Your task to perform on an android device: turn on bluetooth scan Image 0: 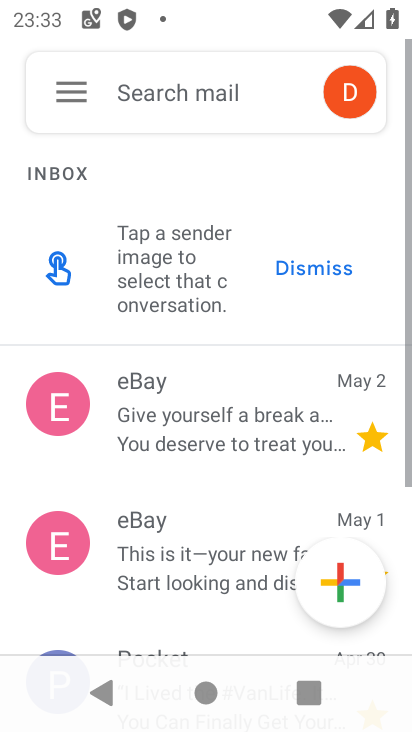
Step 0: press home button
Your task to perform on an android device: turn on bluetooth scan Image 1: 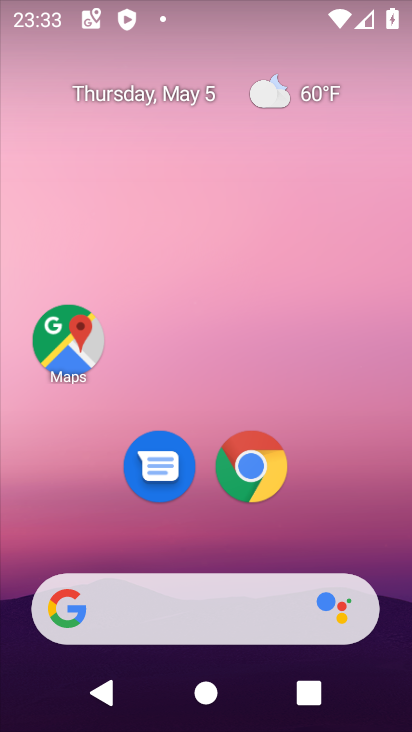
Step 1: drag from (191, 575) to (300, 249)
Your task to perform on an android device: turn on bluetooth scan Image 2: 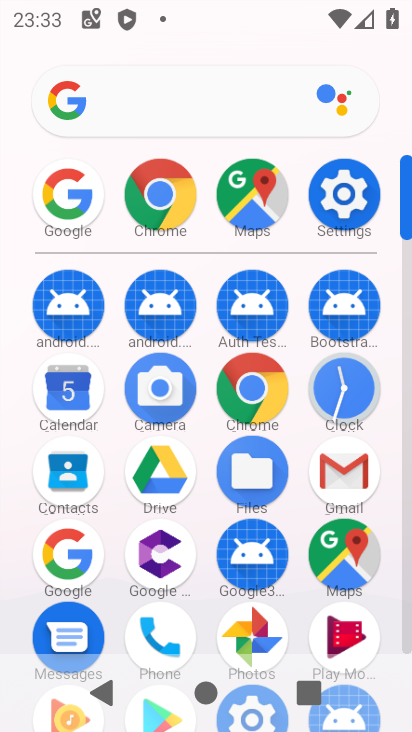
Step 2: click (346, 204)
Your task to perform on an android device: turn on bluetooth scan Image 3: 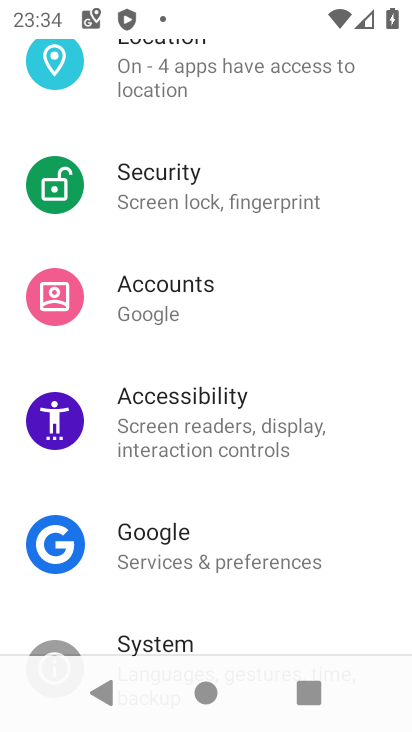
Step 3: drag from (170, 641) to (318, 238)
Your task to perform on an android device: turn on bluetooth scan Image 4: 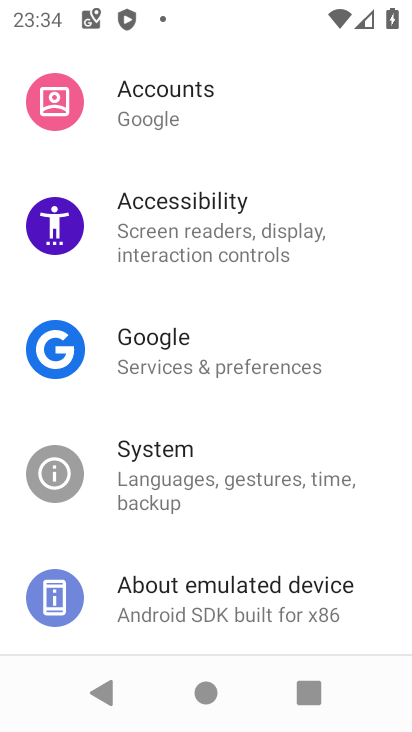
Step 4: drag from (213, 187) to (241, 570)
Your task to perform on an android device: turn on bluetooth scan Image 5: 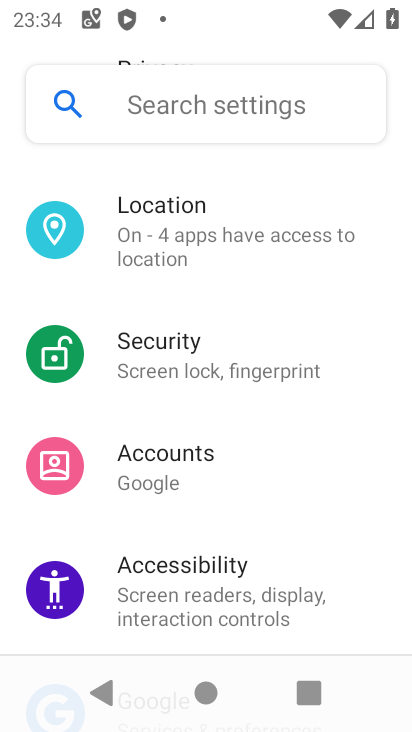
Step 5: drag from (211, 192) to (262, 572)
Your task to perform on an android device: turn on bluetooth scan Image 6: 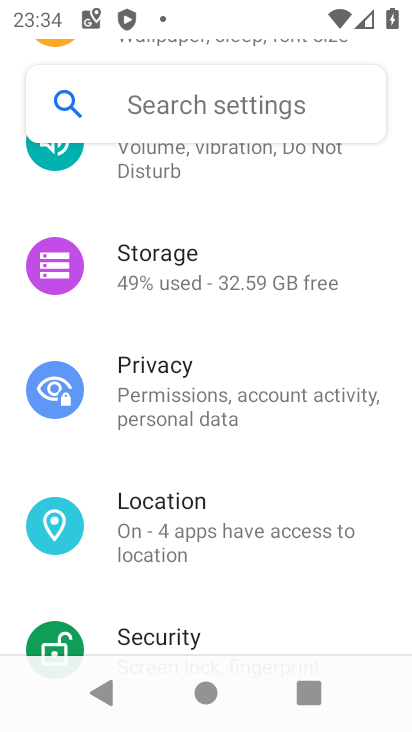
Step 6: click (181, 539)
Your task to perform on an android device: turn on bluetooth scan Image 7: 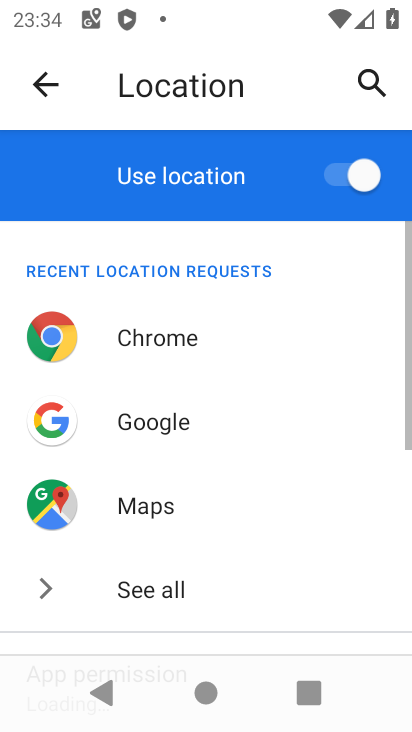
Step 7: drag from (210, 610) to (310, 225)
Your task to perform on an android device: turn on bluetooth scan Image 8: 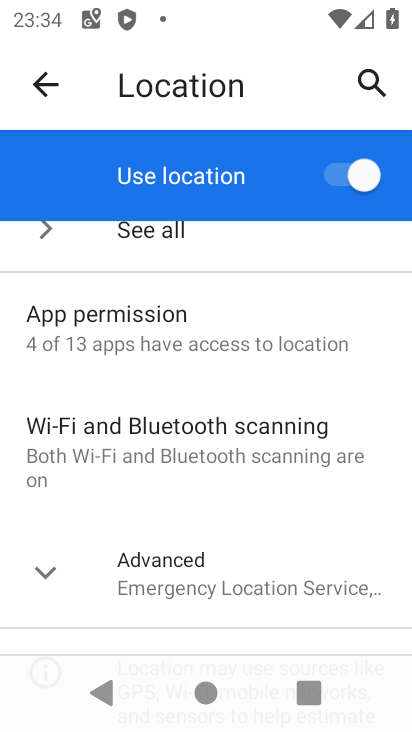
Step 8: click (169, 576)
Your task to perform on an android device: turn on bluetooth scan Image 9: 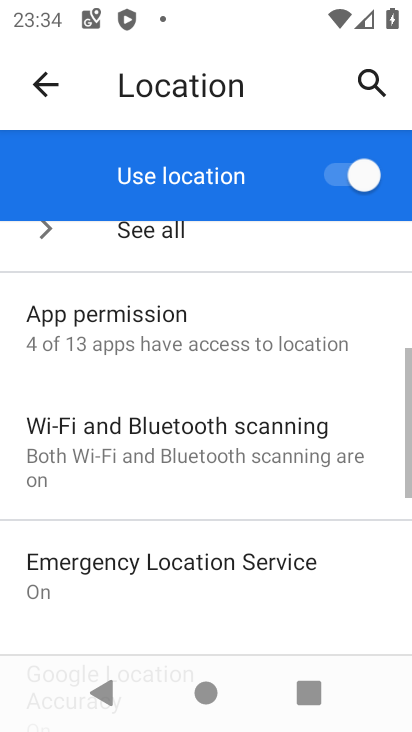
Step 9: drag from (188, 606) to (240, 340)
Your task to perform on an android device: turn on bluetooth scan Image 10: 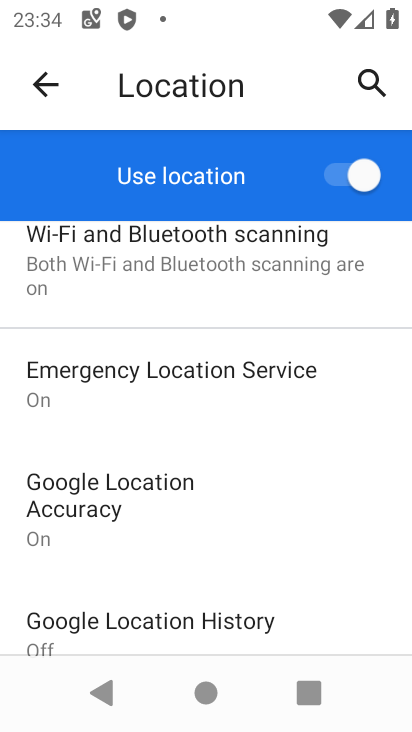
Step 10: click (162, 259)
Your task to perform on an android device: turn on bluetooth scan Image 11: 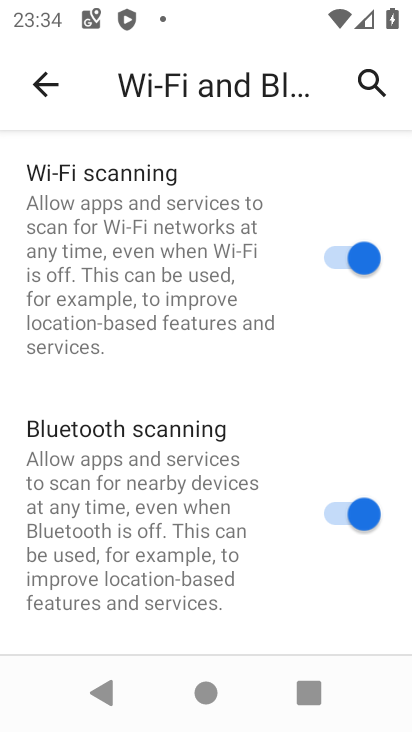
Step 11: task complete